Your task to perform on an android device: find photos in the google photos app Image 0: 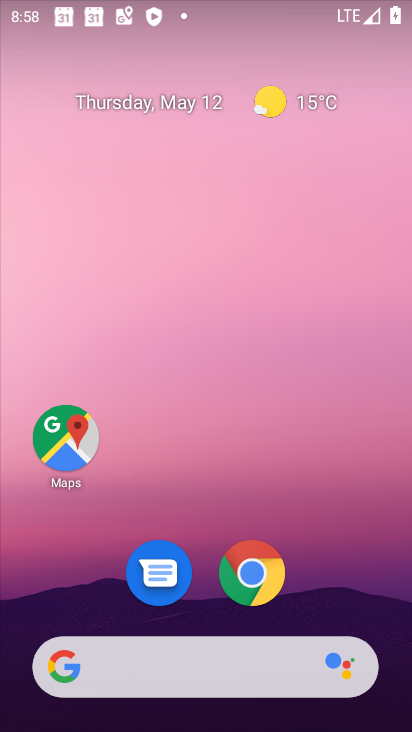
Step 0: drag from (309, 533) to (200, 132)
Your task to perform on an android device: find photos in the google photos app Image 1: 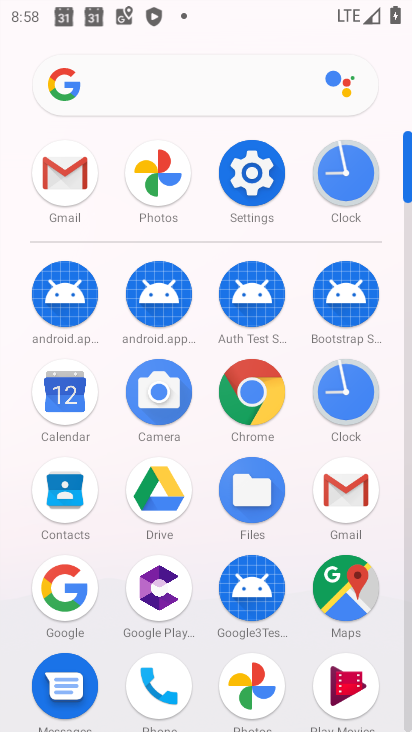
Step 1: click (158, 179)
Your task to perform on an android device: find photos in the google photos app Image 2: 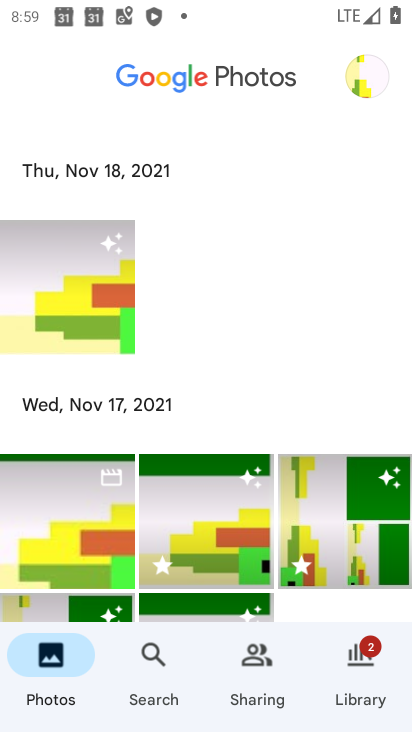
Step 2: click (147, 658)
Your task to perform on an android device: find photos in the google photos app Image 3: 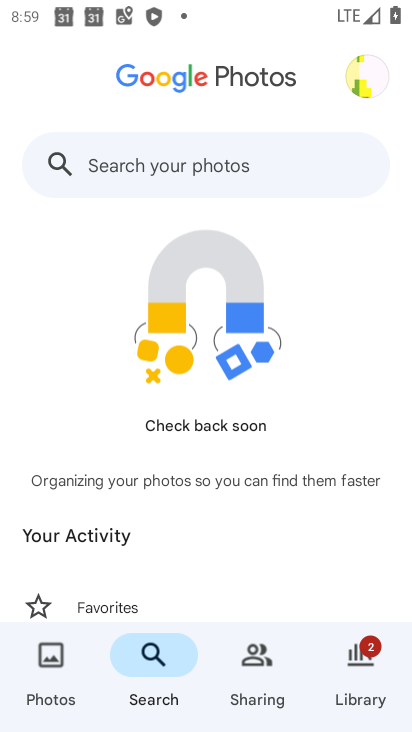
Step 3: task complete